Your task to perform on an android device: Clear all items from cart on bestbuy.com. Add alienware area 51 to the cart on bestbuy.com Image 0: 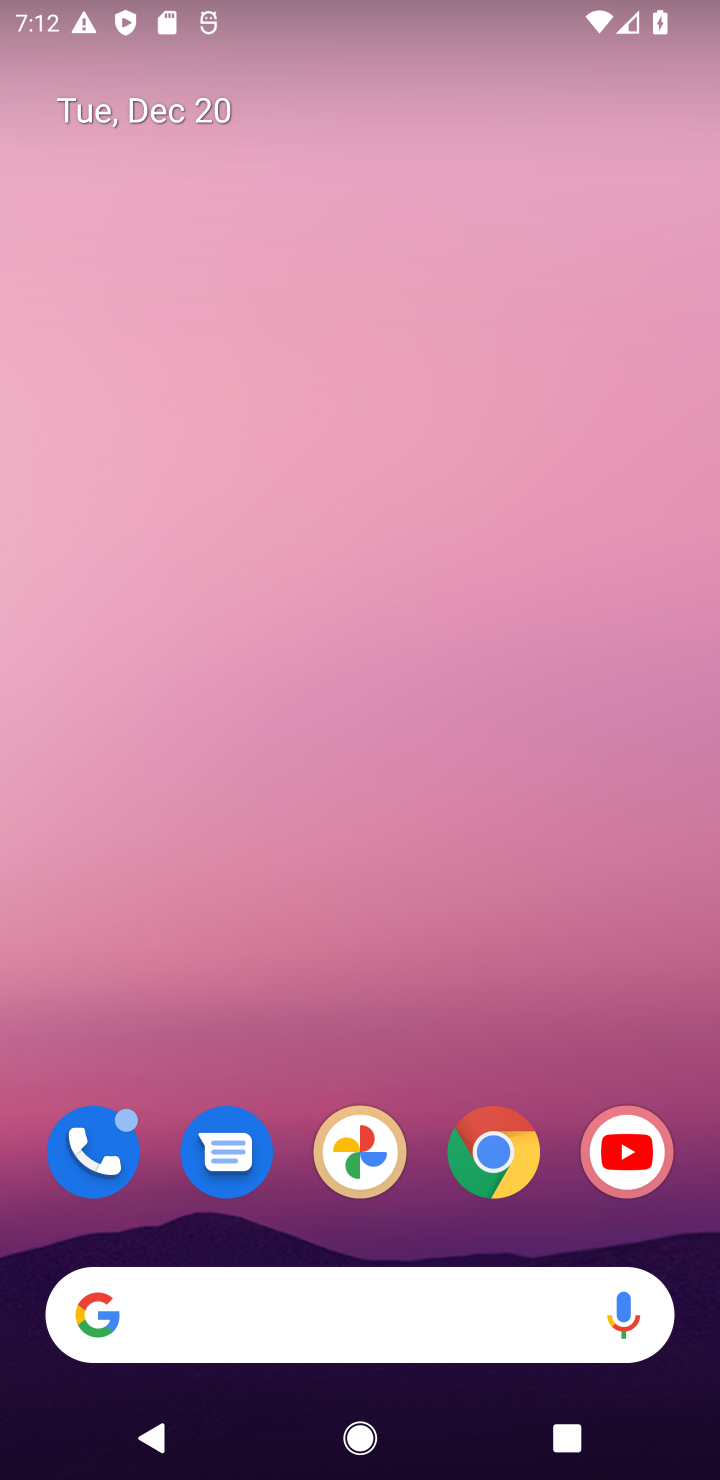
Step 0: click (484, 1151)
Your task to perform on an android device: Clear all items from cart on bestbuy.com. Add alienware area 51 to the cart on bestbuy.com Image 1: 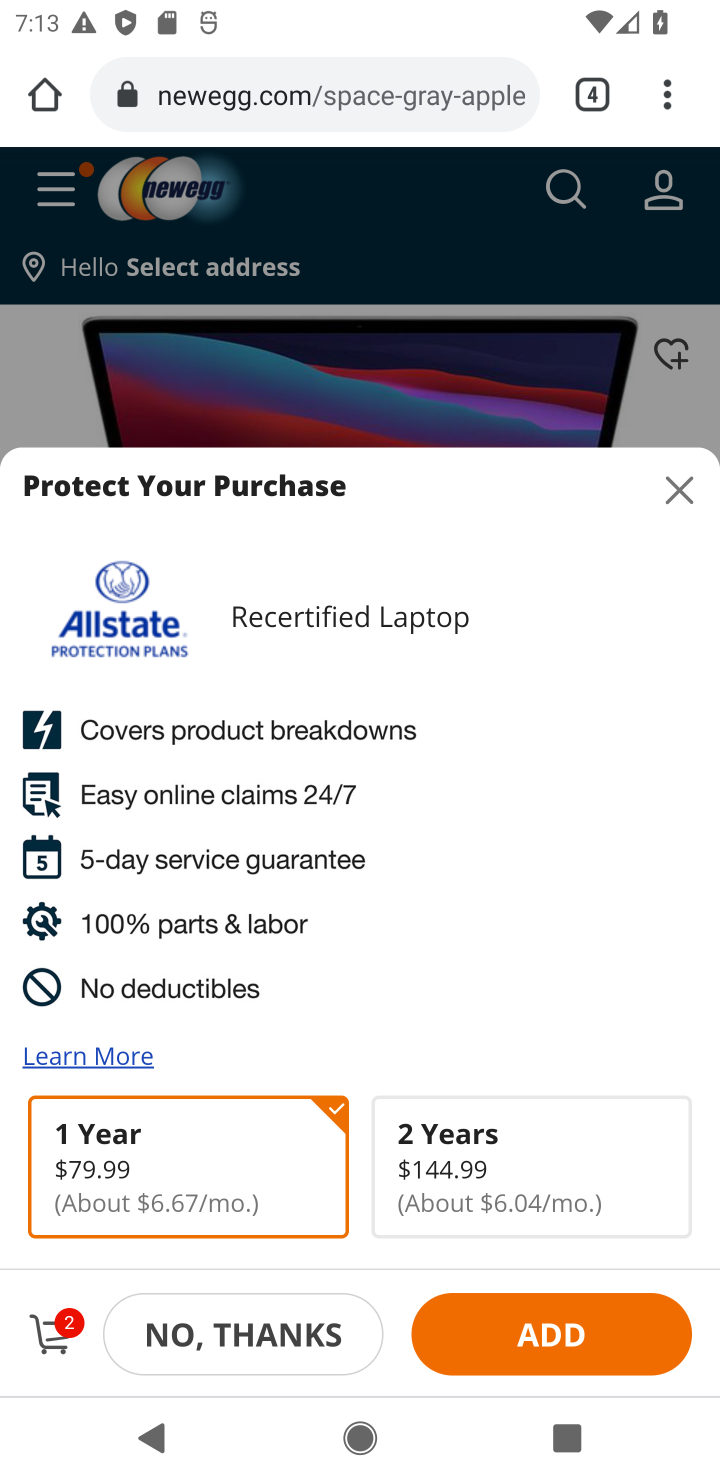
Step 1: click (597, 82)
Your task to perform on an android device: Clear all items from cart on bestbuy.com. Add alienware area 51 to the cart on bestbuy.com Image 2: 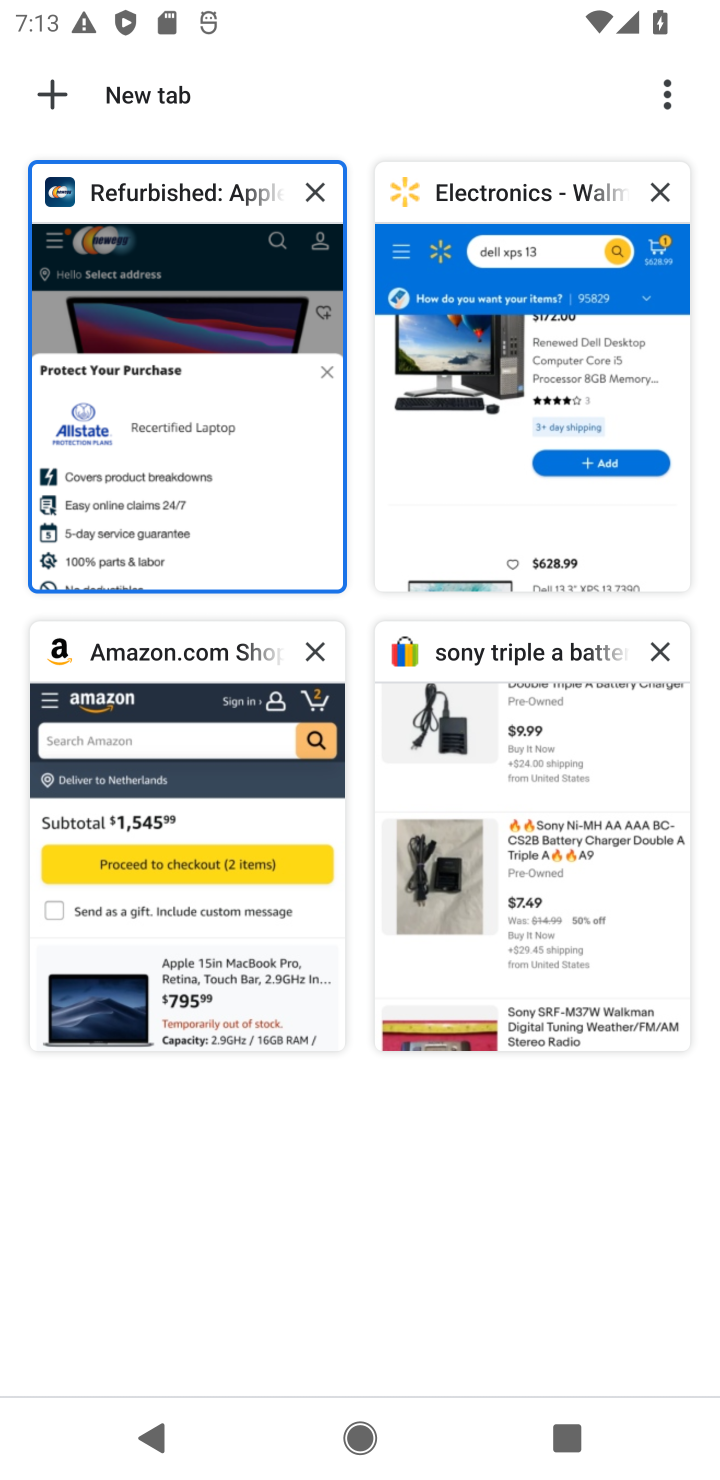
Step 2: click (49, 87)
Your task to perform on an android device: Clear all items from cart on bestbuy.com. Add alienware area 51 to the cart on bestbuy.com Image 3: 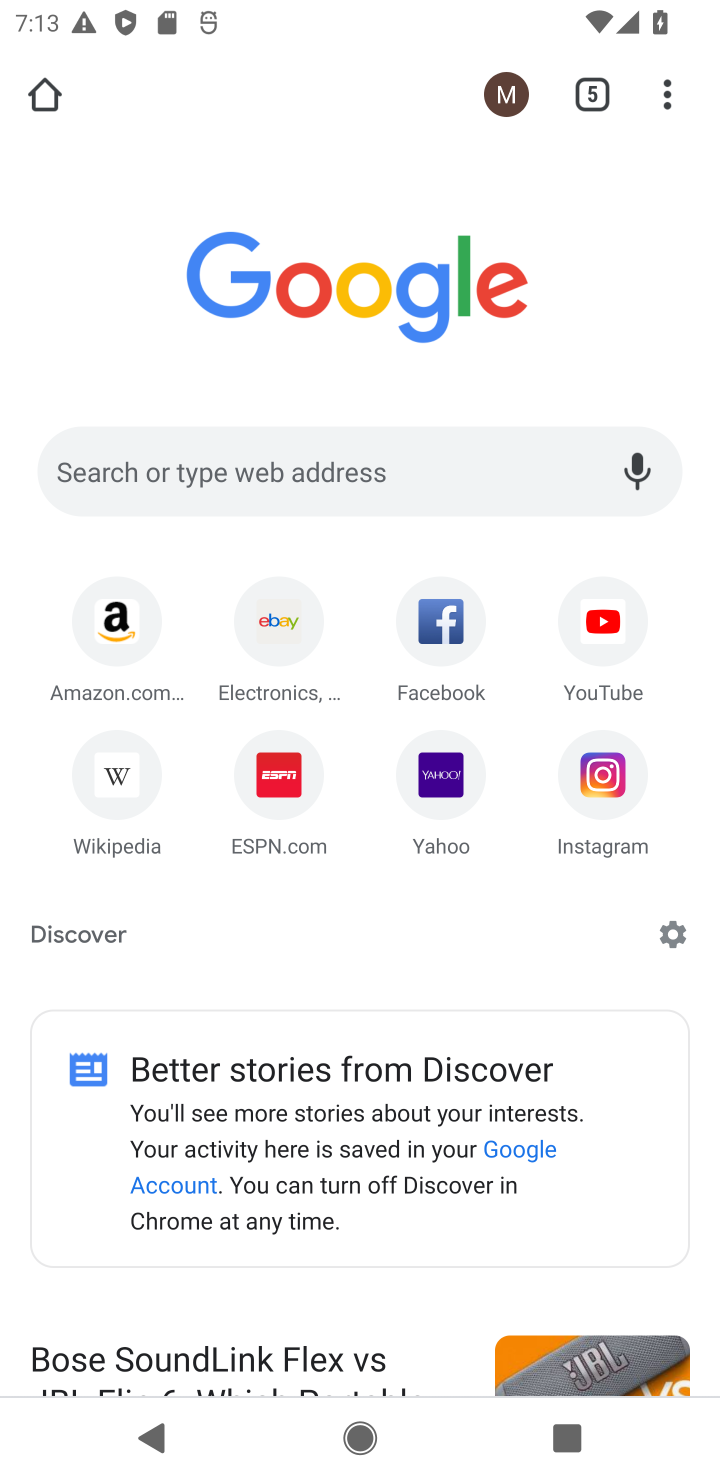
Step 3: click (287, 458)
Your task to perform on an android device: Clear all items from cart on bestbuy.com. Add alienware area 51 to the cart on bestbuy.com Image 4: 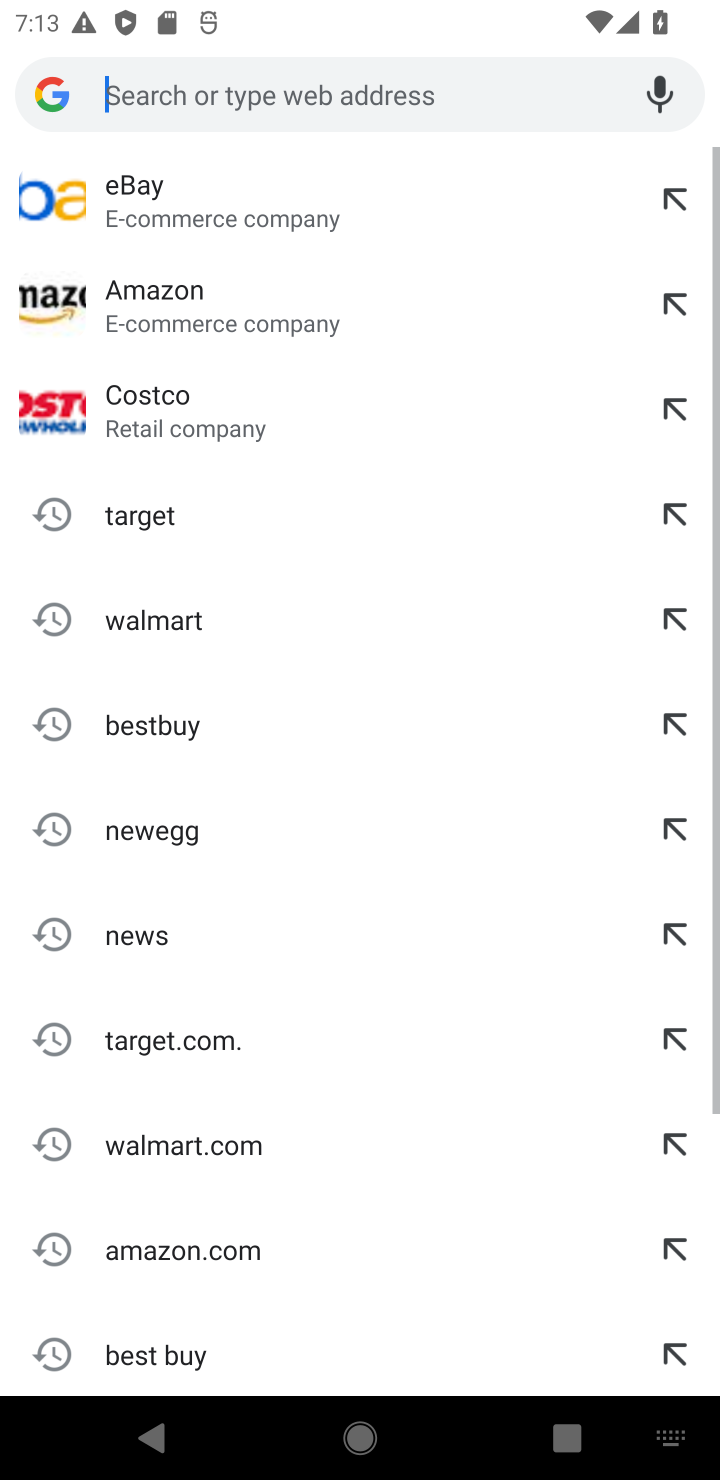
Step 4: click (144, 722)
Your task to perform on an android device: Clear all items from cart on bestbuy.com. Add alienware area 51 to the cart on bestbuy.com Image 5: 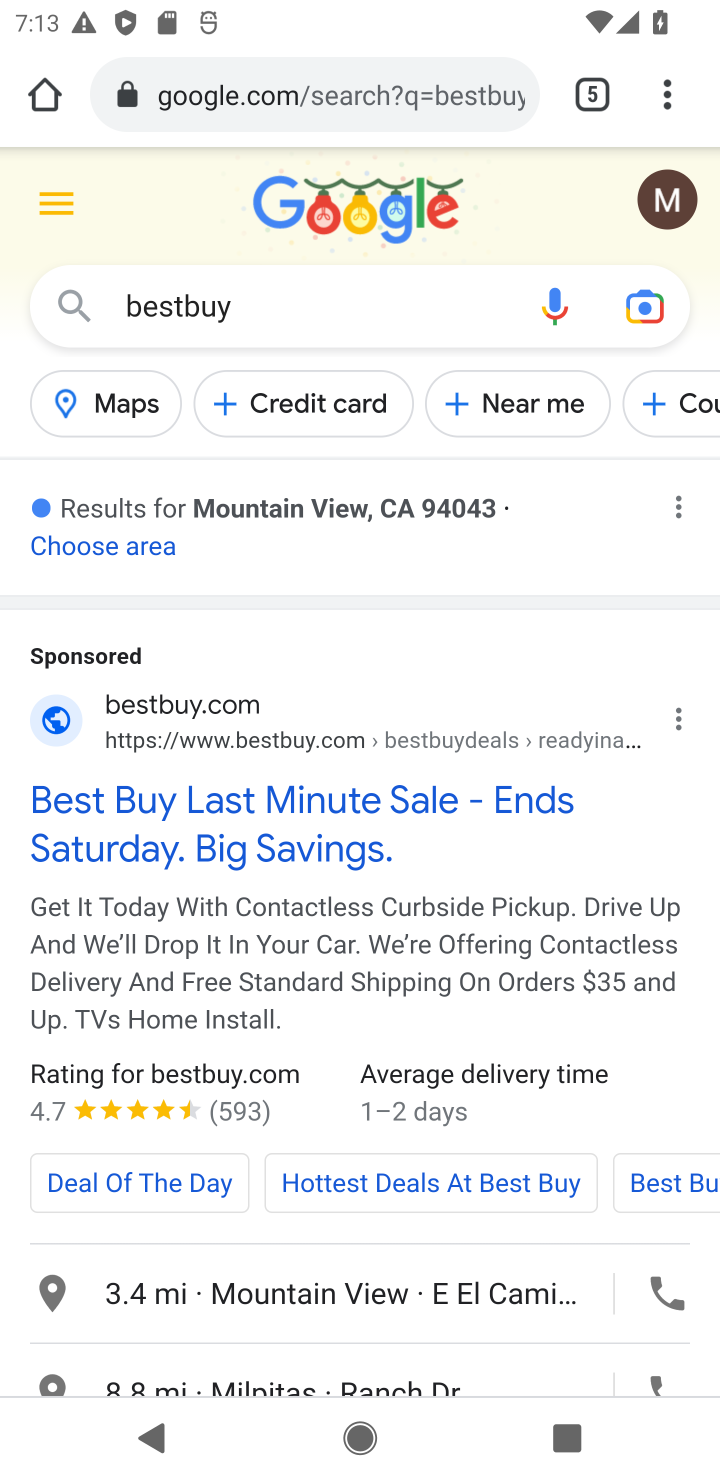
Step 5: drag from (226, 1083) to (339, 451)
Your task to perform on an android device: Clear all items from cart on bestbuy.com. Add alienware area 51 to the cart on bestbuy.com Image 6: 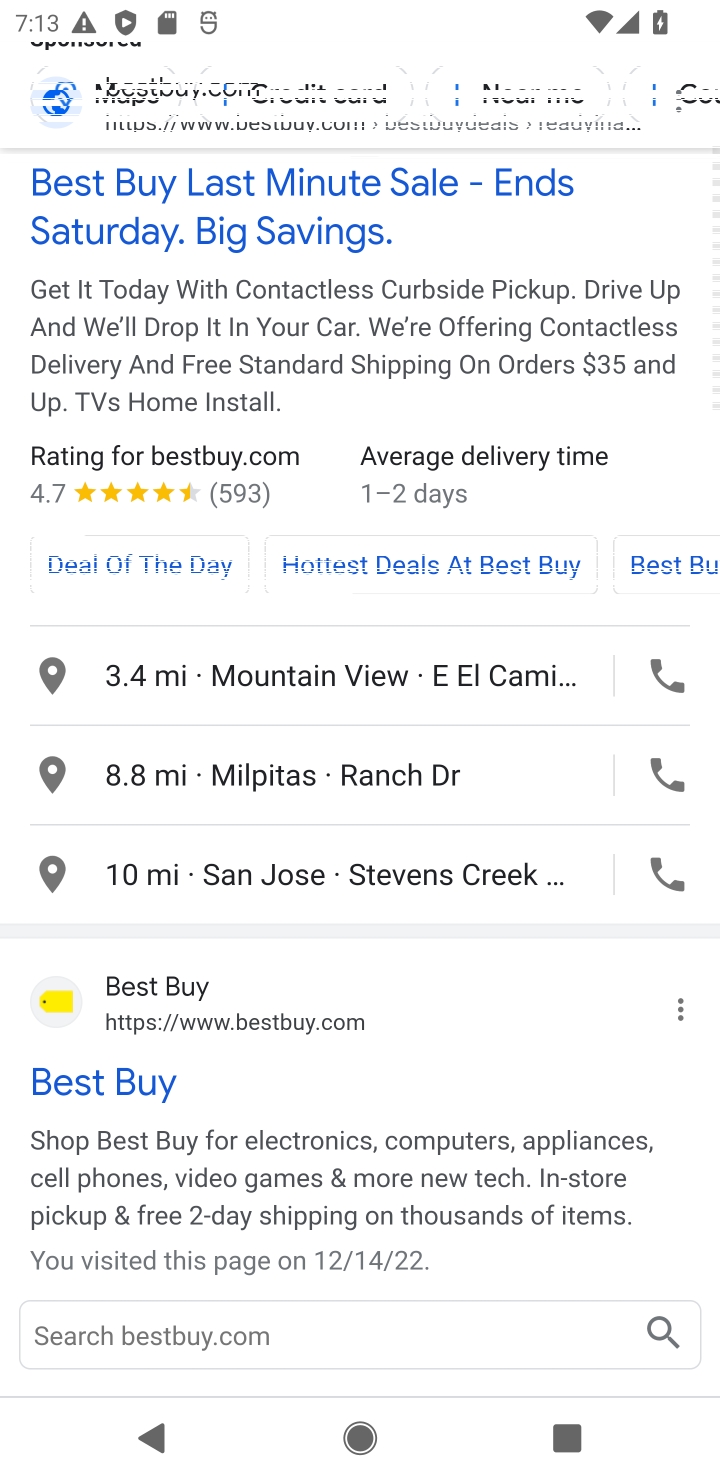
Step 6: click (200, 1318)
Your task to perform on an android device: Clear all items from cart on bestbuy.com. Add alienware area 51 to the cart on bestbuy.com Image 7: 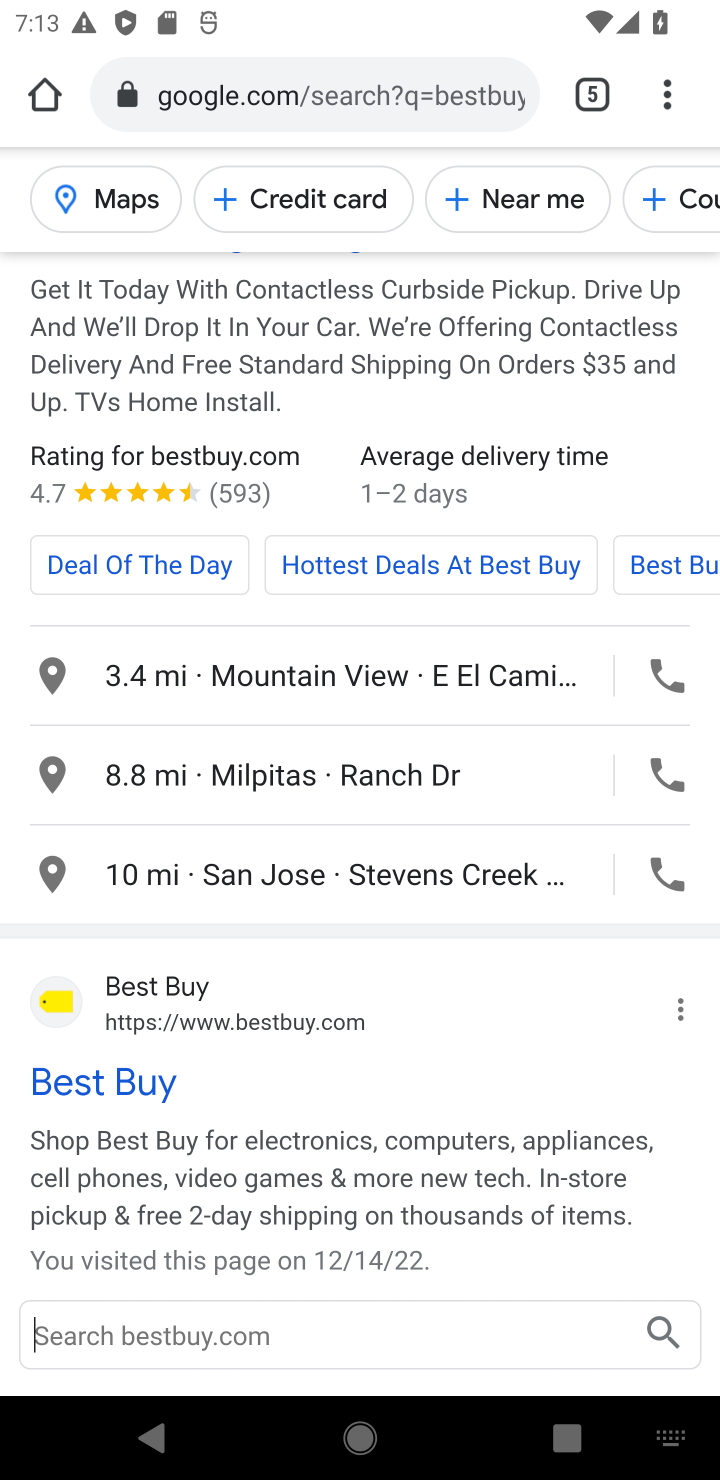
Step 7: type "alienware area 51"
Your task to perform on an android device: Clear all items from cart on bestbuy.com. Add alienware area 51 to the cart on bestbuy.com Image 8: 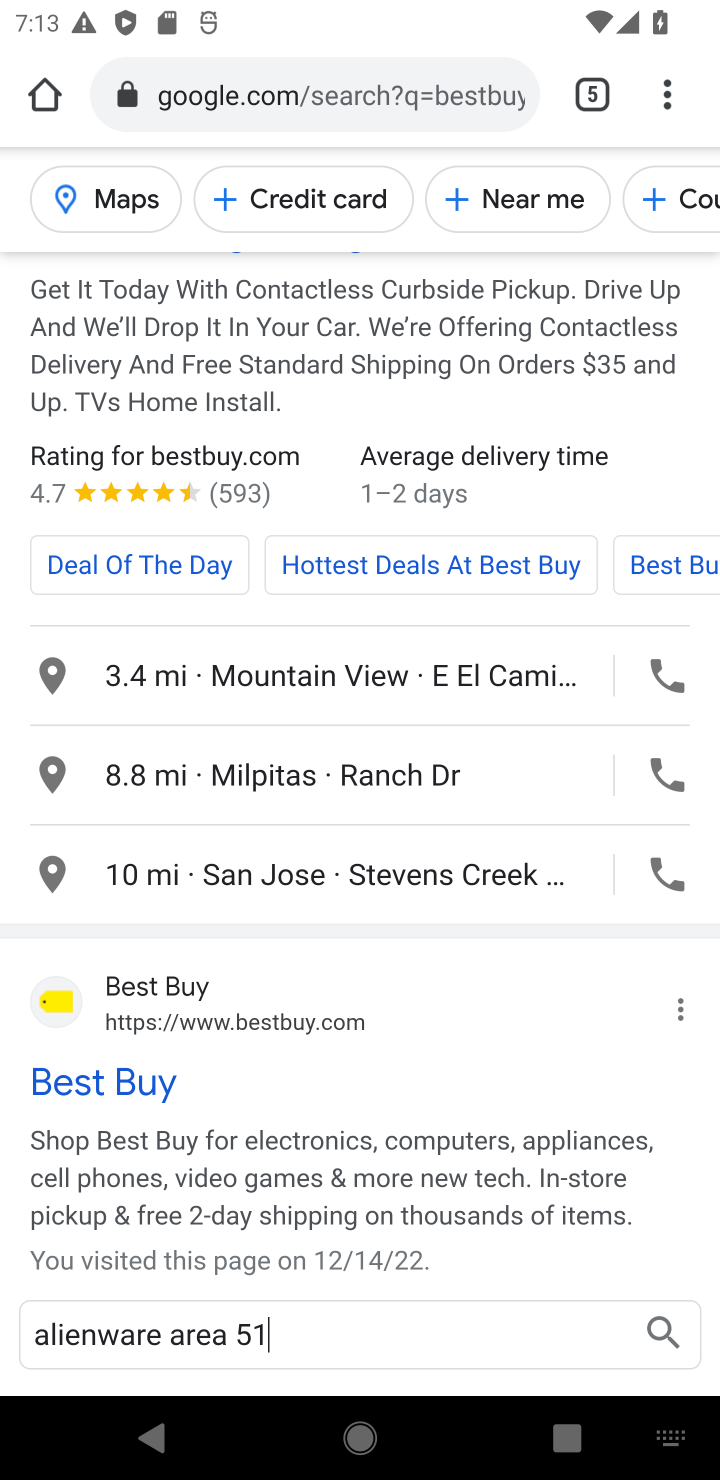
Step 8: click (659, 1342)
Your task to perform on an android device: Clear all items from cart on bestbuy.com. Add alienware area 51 to the cart on bestbuy.com Image 9: 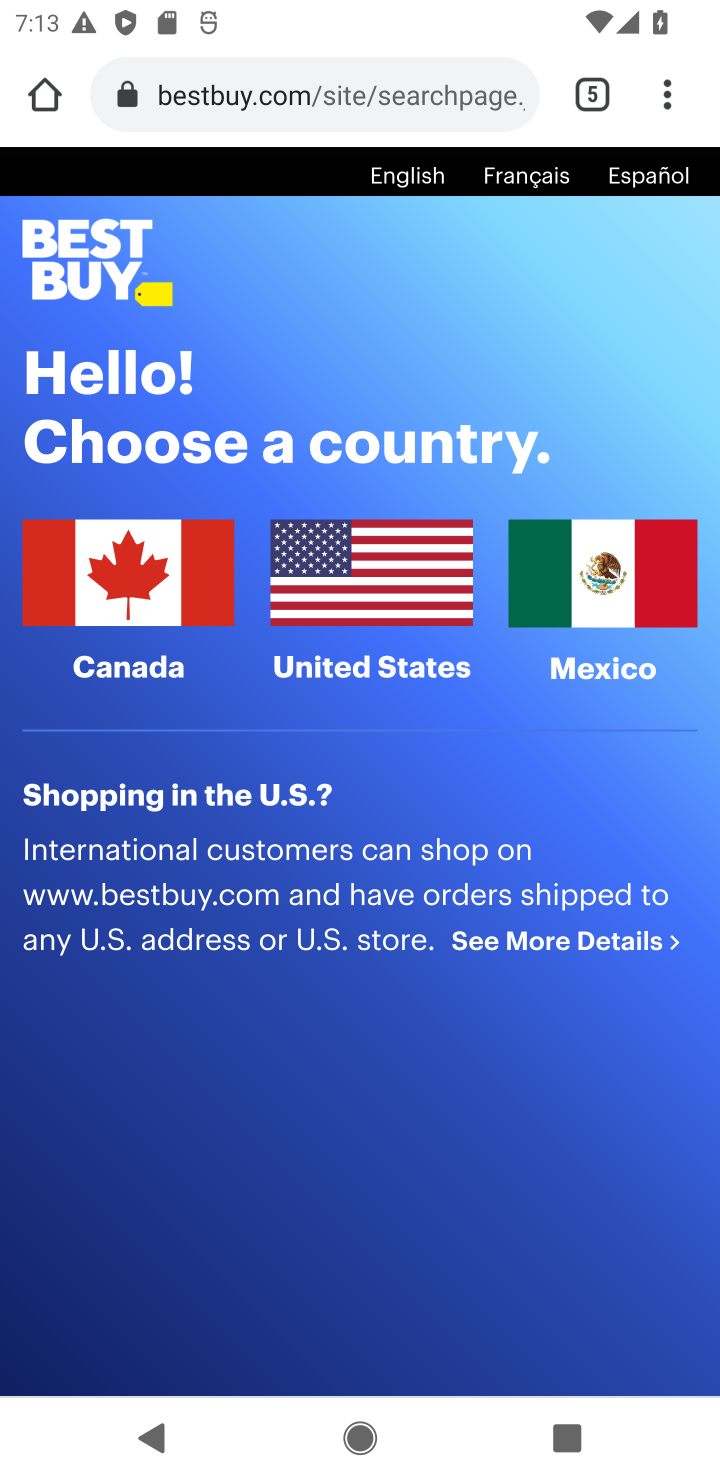
Step 9: click (391, 540)
Your task to perform on an android device: Clear all items from cart on bestbuy.com. Add alienware area 51 to the cart on bestbuy.com Image 10: 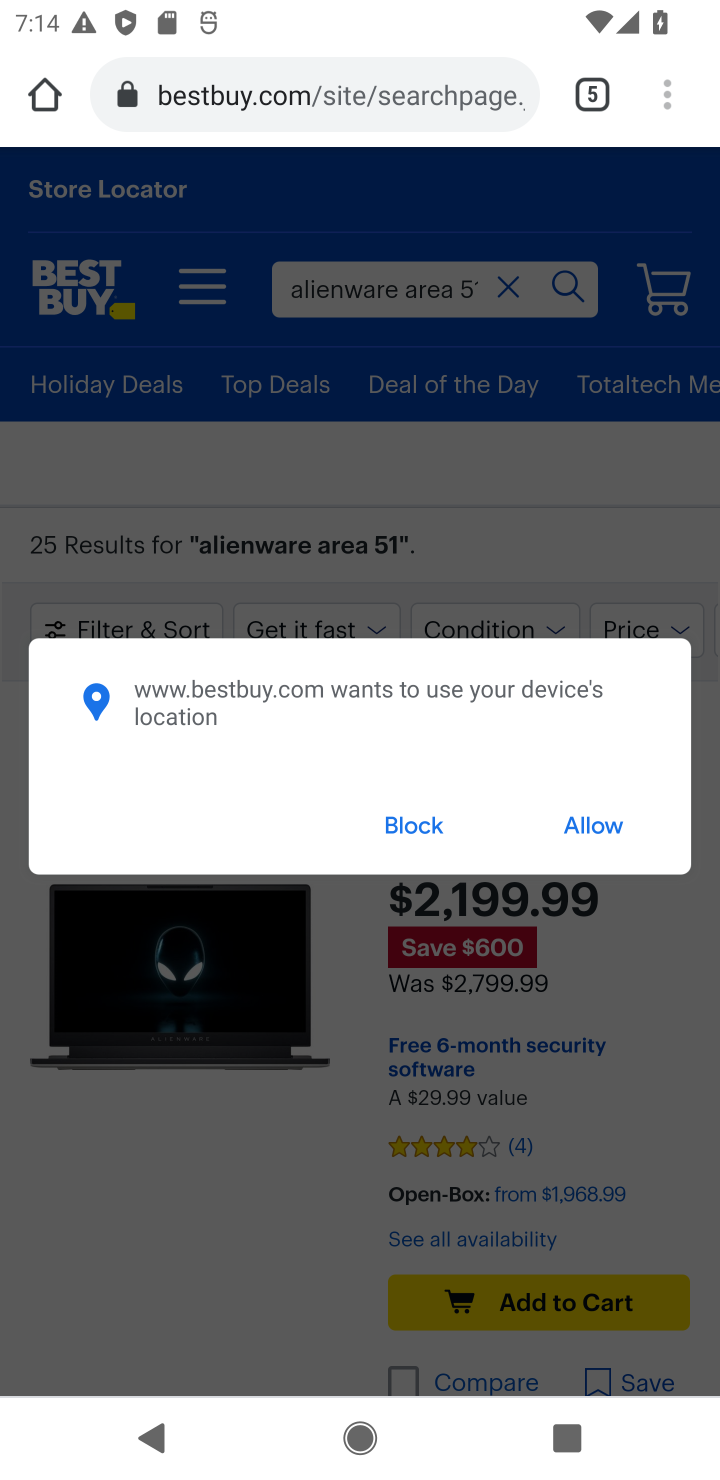
Step 10: click (420, 830)
Your task to perform on an android device: Clear all items from cart on bestbuy.com. Add alienware area 51 to the cart on bestbuy.com Image 11: 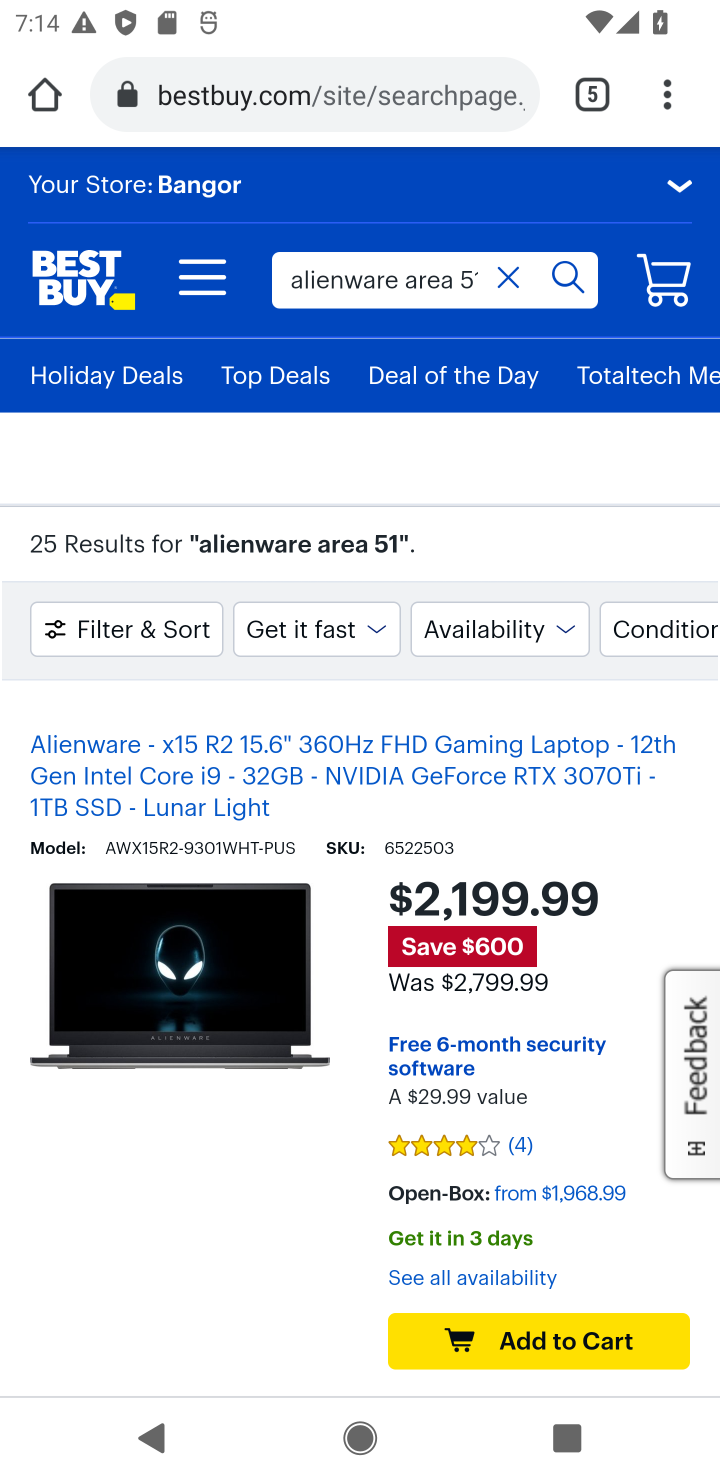
Step 11: click (547, 1320)
Your task to perform on an android device: Clear all items from cart on bestbuy.com. Add alienware area 51 to the cart on bestbuy.com Image 12: 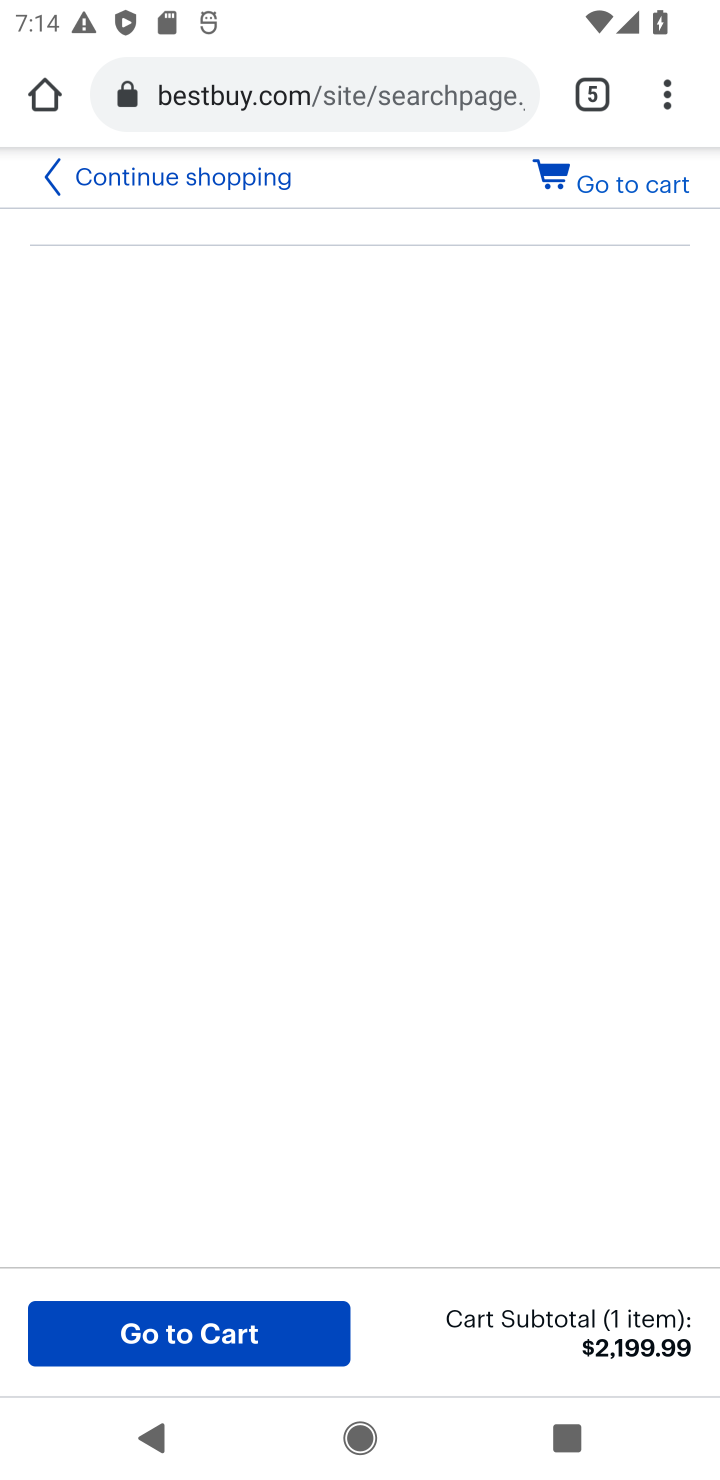
Step 12: task complete